Your task to perform on an android device: change the clock display to analog Image 0: 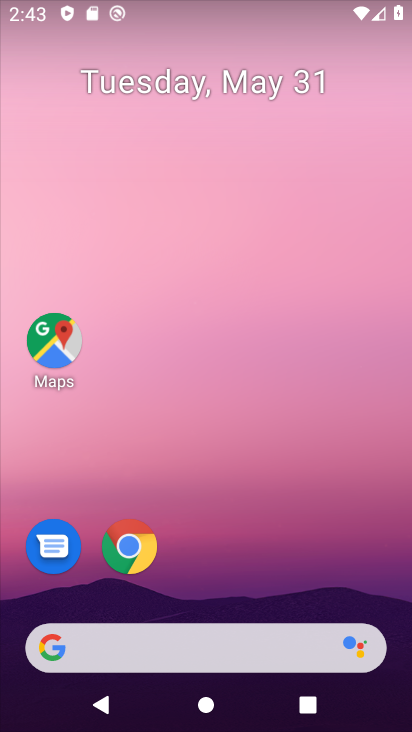
Step 0: drag from (223, 479) to (186, 28)
Your task to perform on an android device: change the clock display to analog Image 1: 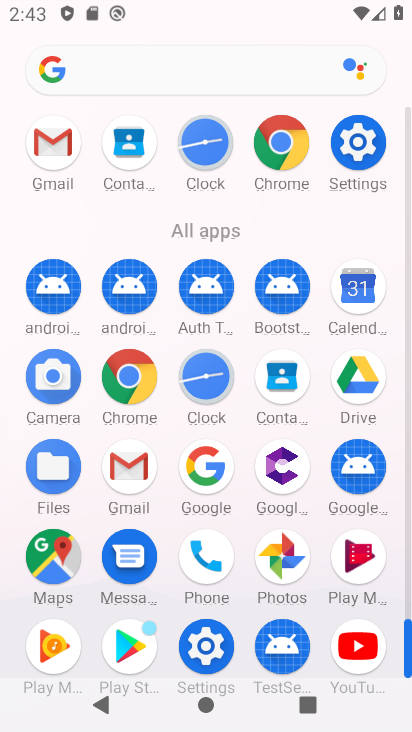
Step 1: click (189, 366)
Your task to perform on an android device: change the clock display to analog Image 2: 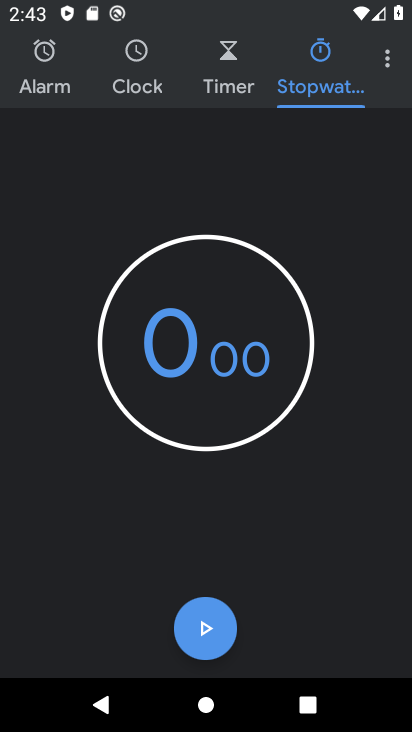
Step 2: click (385, 62)
Your task to perform on an android device: change the clock display to analog Image 3: 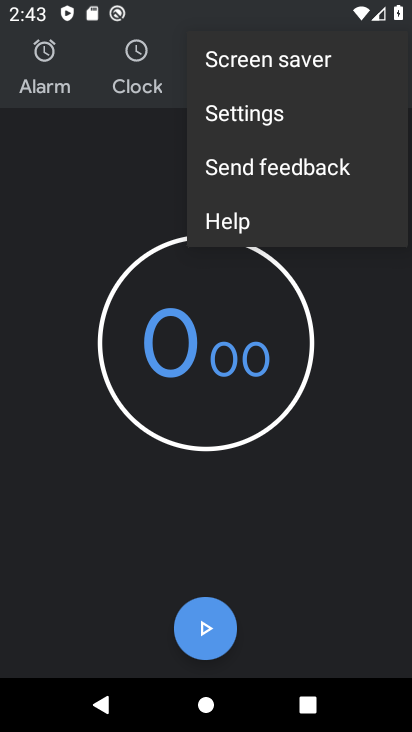
Step 3: click (301, 103)
Your task to perform on an android device: change the clock display to analog Image 4: 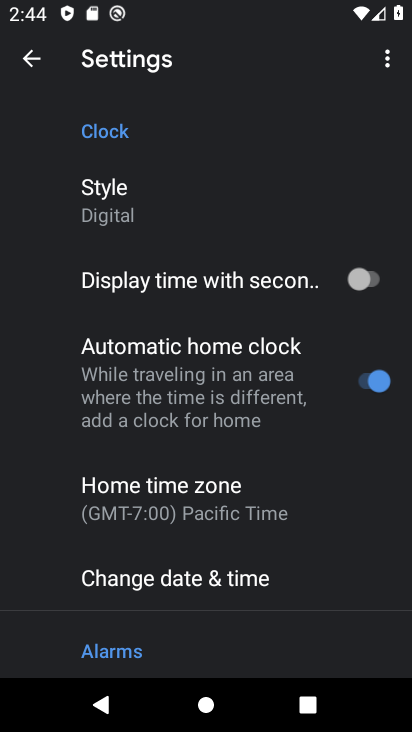
Step 4: click (164, 206)
Your task to perform on an android device: change the clock display to analog Image 5: 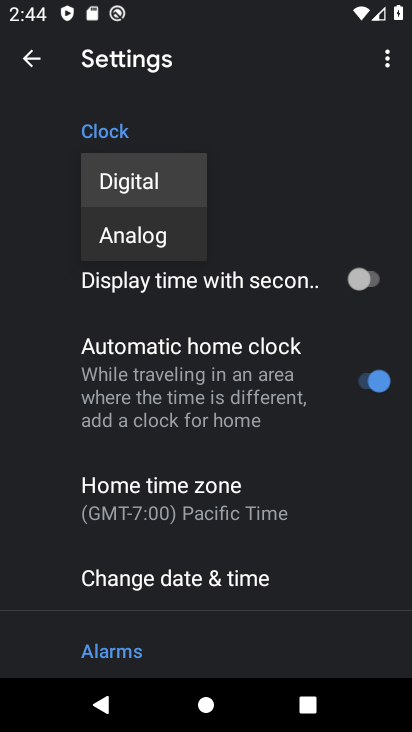
Step 5: click (163, 232)
Your task to perform on an android device: change the clock display to analog Image 6: 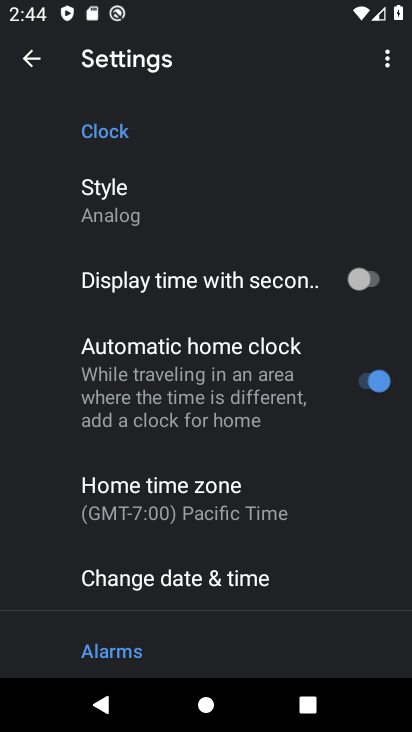
Step 6: task complete